Your task to perform on an android device: open app "Yahoo Mail" Image 0: 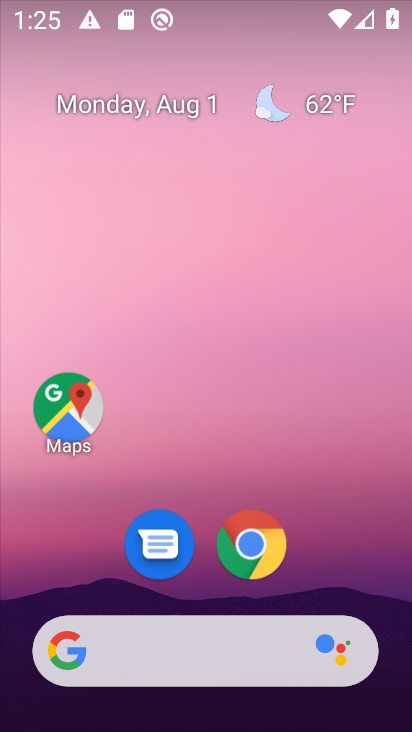
Step 0: click (241, 63)
Your task to perform on an android device: open app "Yahoo Mail" Image 1: 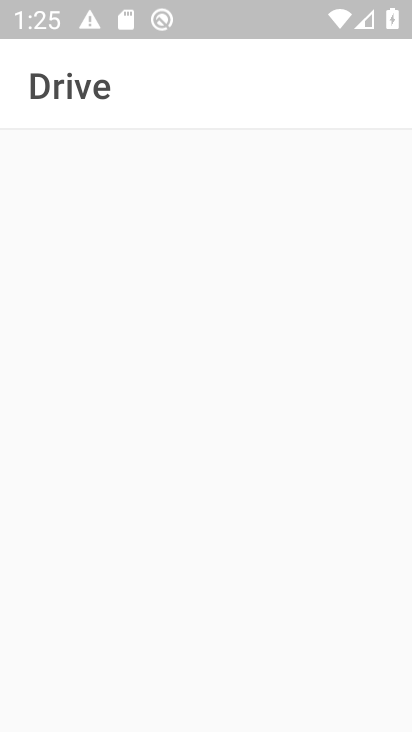
Step 1: press home button
Your task to perform on an android device: open app "Yahoo Mail" Image 2: 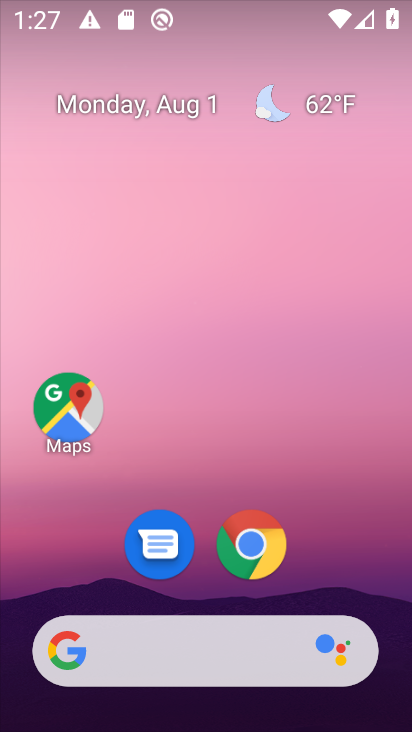
Step 2: drag from (337, 520) to (33, 88)
Your task to perform on an android device: open app "Yahoo Mail" Image 3: 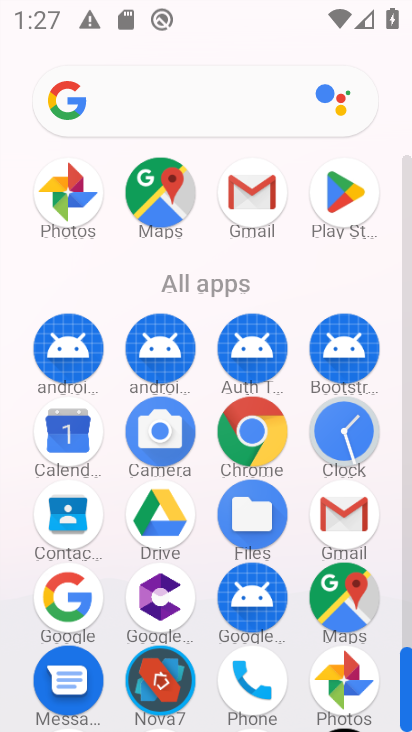
Step 3: click (347, 245)
Your task to perform on an android device: open app "Yahoo Mail" Image 4: 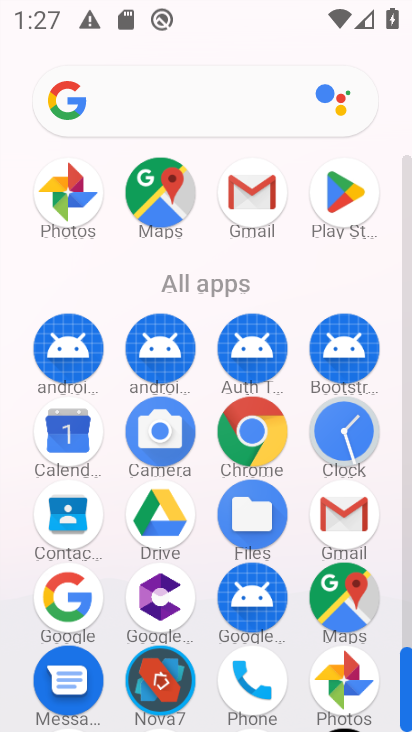
Step 4: click (336, 204)
Your task to perform on an android device: open app "Yahoo Mail" Image 5: 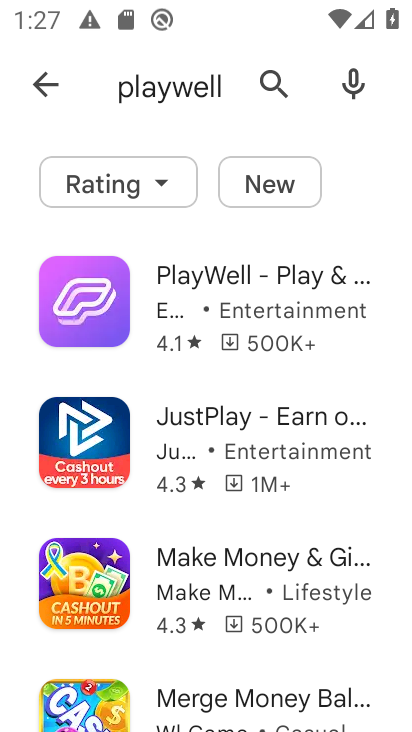
Step 5: press back button
Your task to perform on an android device: open app "Yahoo Mail" Image 6: 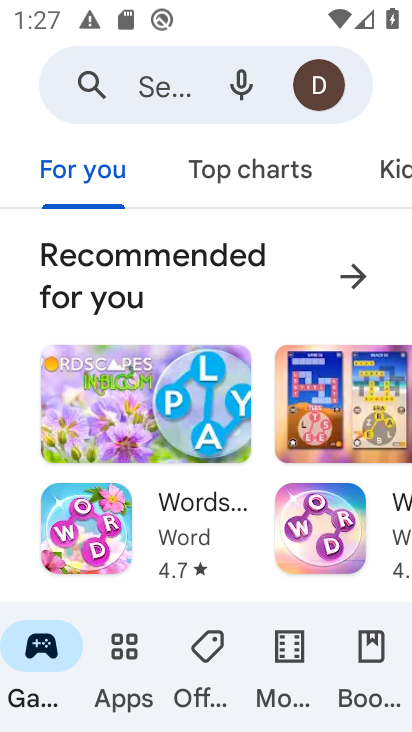
Step 6: click (146, 90)
Your task to perform on an android device: open app "Yahoo Mail" Image 7: 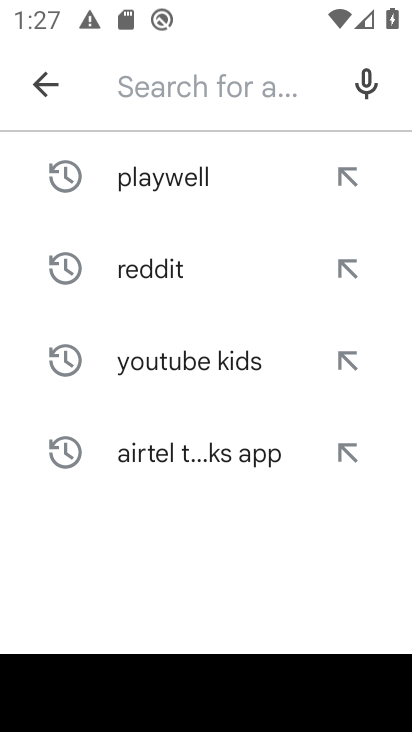
Step 7: type "Yahoo Mail"
Your task to perform on an android device: open app "Yahoo Mail" Image 8: 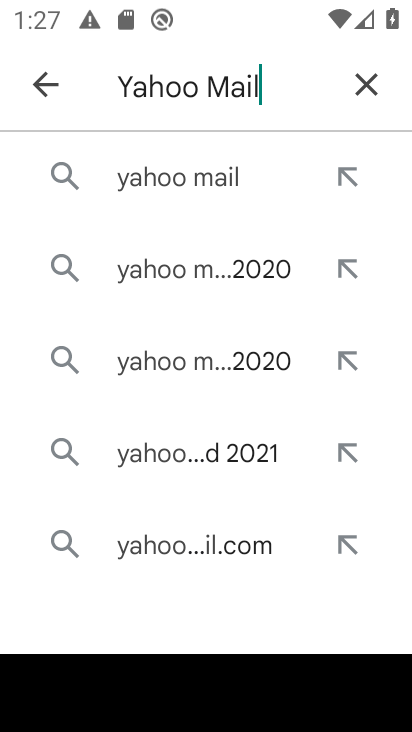
Step 8: click (133, 183)
Your task to perform on an android device: open app "Yahoo Mail" Image 9: 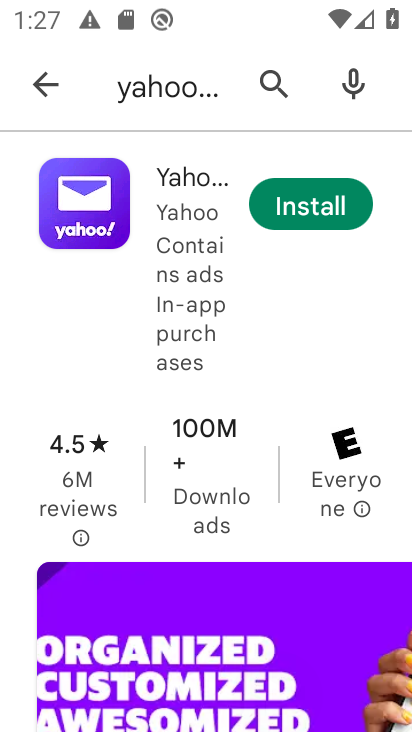
Step 9: task complete